Your task to perform on an android device: Open my contact list Image 0: 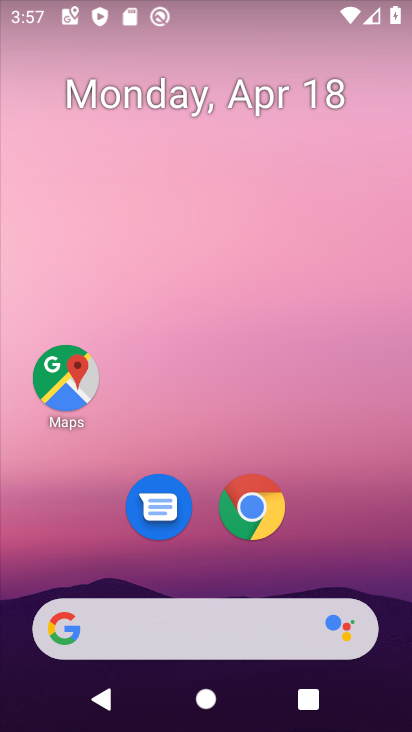
Step 0: drag from (235, 617) to (205, 2)
Your task to perform on an android device: Open my contact list Image 1: 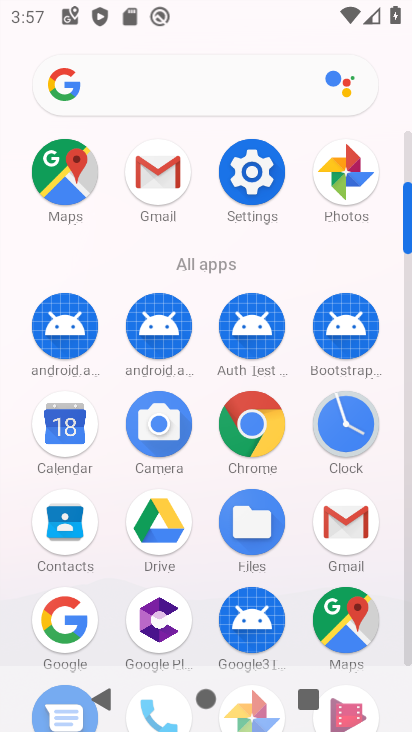
Step 1: click (61, 536)
Your task to perform on an android device: Open my contact list Image 2: 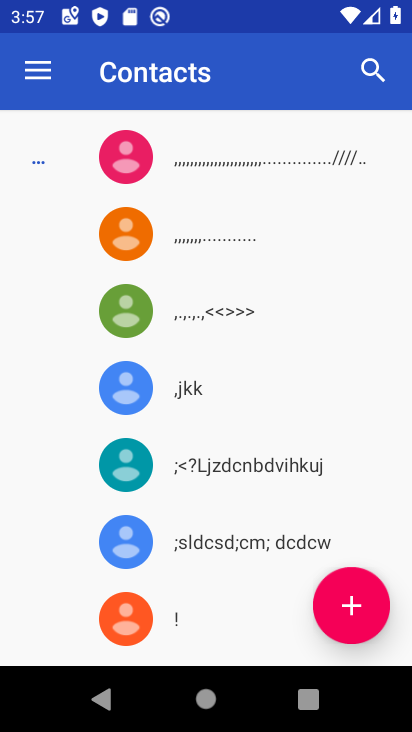
Step 2: task complete